Your task to perform on an android device: Open Wikipedia Image 0: 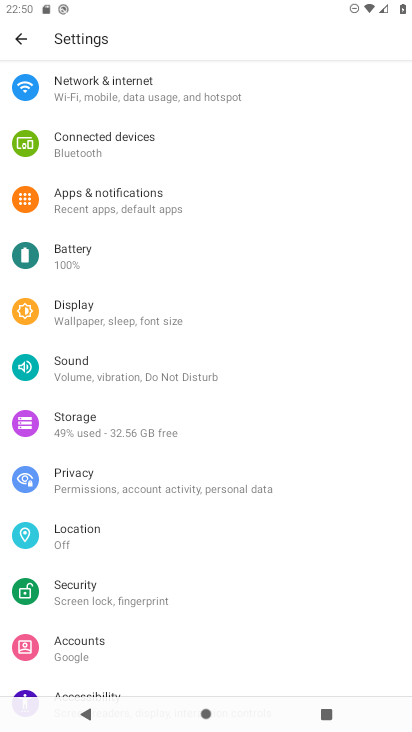
Step 0: press home button
Your task to perform on an android device: Open Wikipedia Image 1: 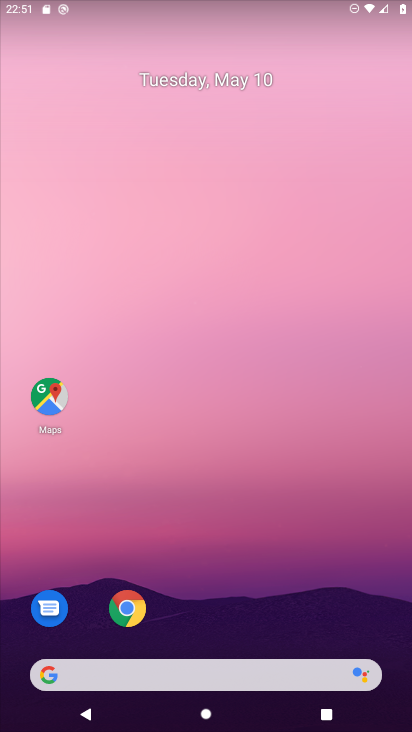
Step 1: drag from (232, 546) to (235, 288)
Your task to perform on an android device: Open Wikipedia Image 2: 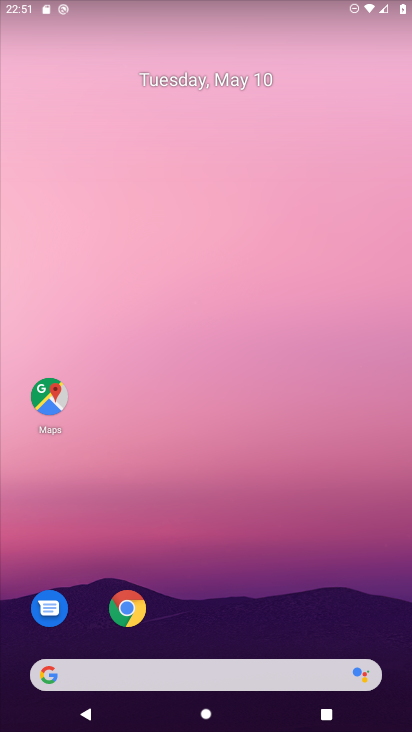
Step 2: drag from (204, 620) to (264, 273)
Your task to perform on an android device: Open Wikipedia Image 3: 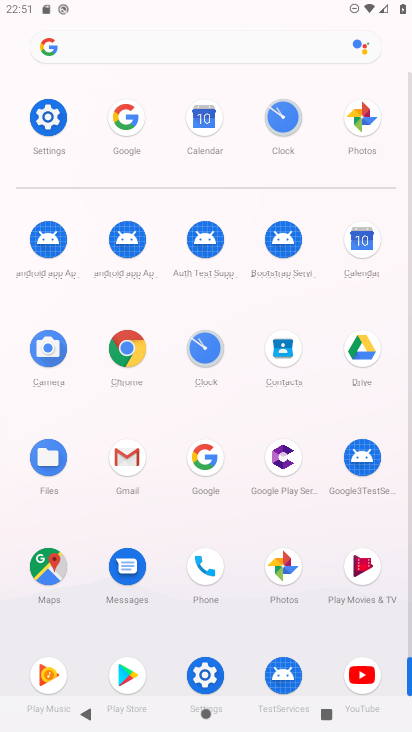
Step 3: click (123, 350)
Your task to perform on an android device: Open Wikipedia Image 4: 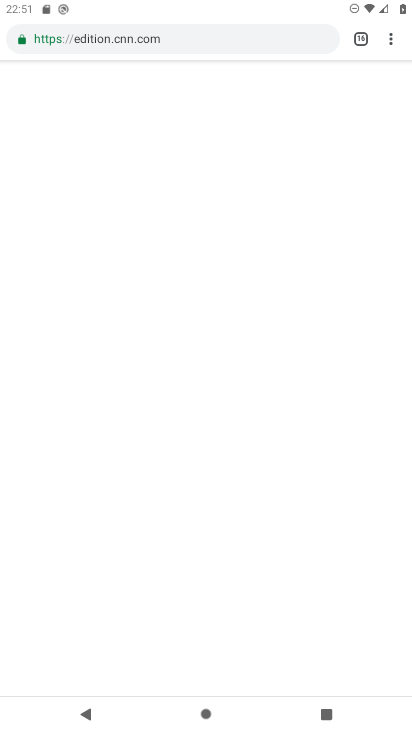
Step 4: click (380, 37)
Your task to perform on an android device: Open Wikipedia Image 5: 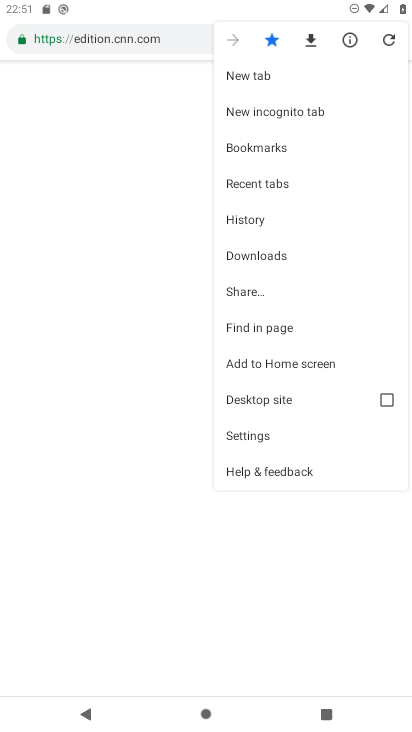
Step 5: click (275, 84)
Your task to perform on an android device: Open Wikipedia Image 6: 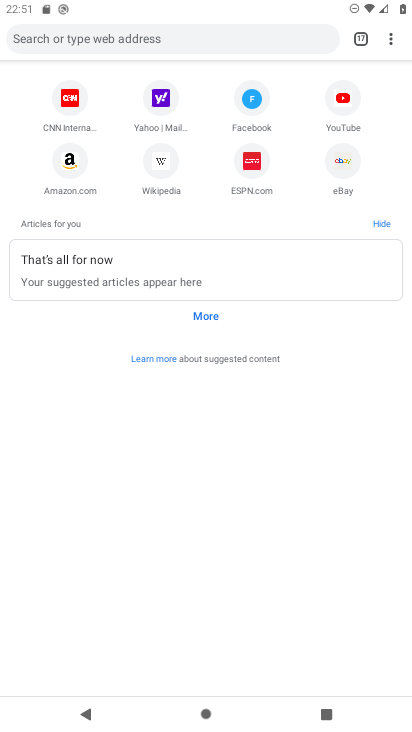
Step 6: click (166, 169)
Your task to perform on an android device: Open Wikipedia Image 7: 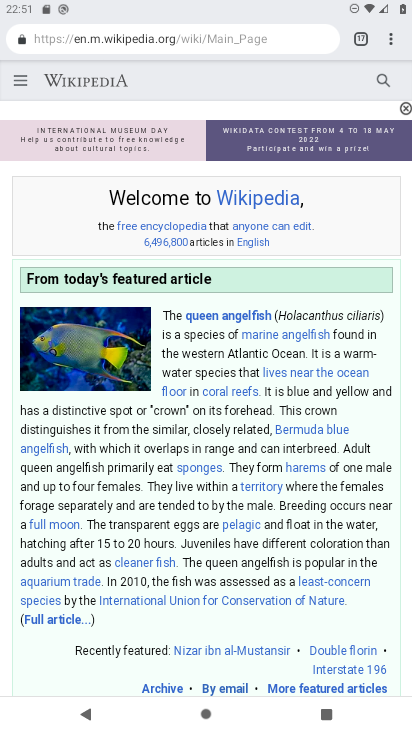
Step 7: task complete